Your task to perform on an android device: Toggle the flashlight Image 0: 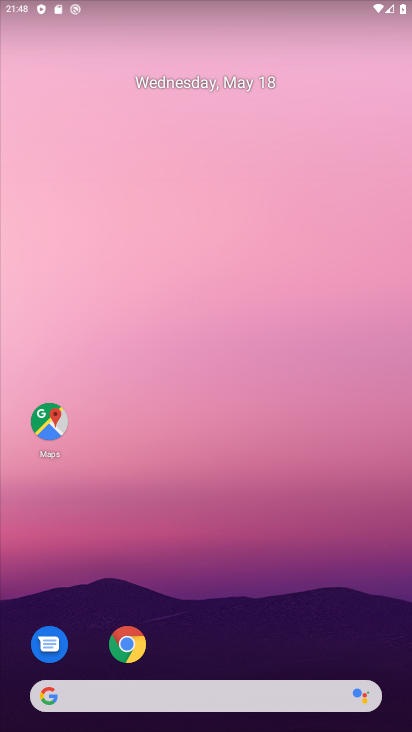
Step 0: drag from (321, 601) to (322, 475)
Your task to perform on an android device: Toggle the flashlight Image 1: 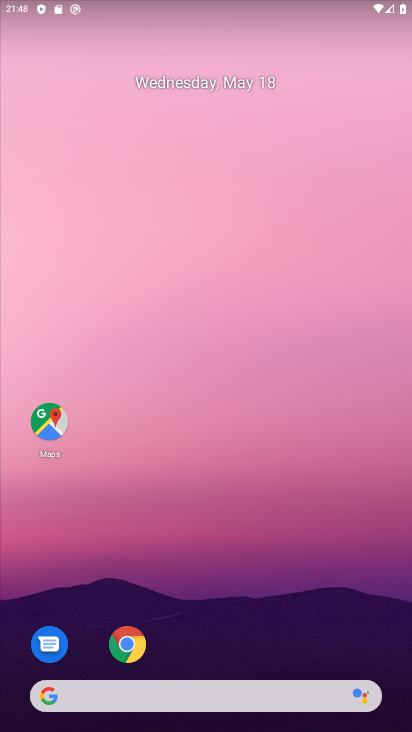
Step 1: task complete